Your task to perform on an android device: check out phone information Image 0: 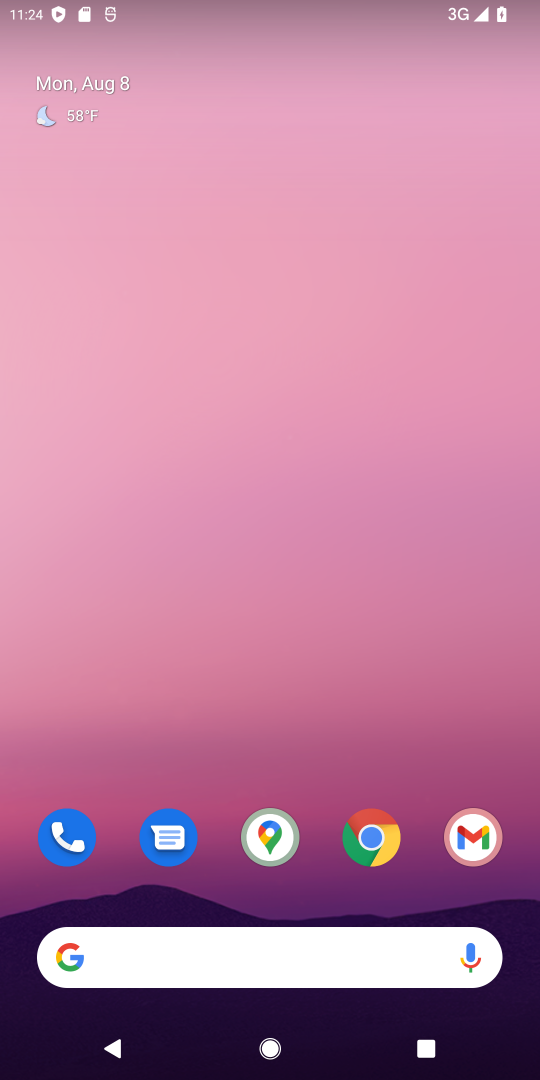
Step 0: drag from (532, 1026) to (499, 214)
Your task to perform on an android device: check out phone information Image 1: 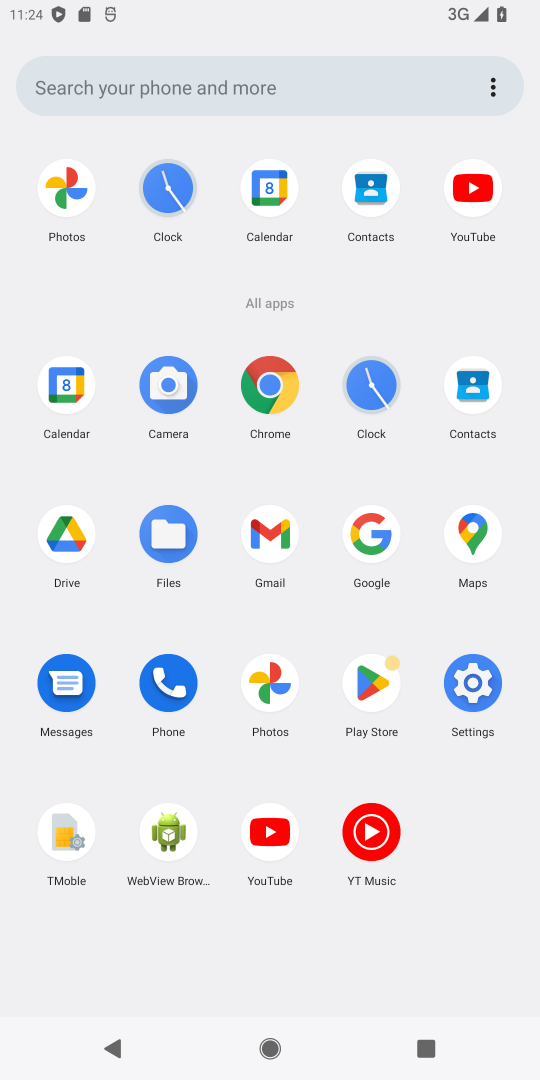
Step 1: click (463, 690)
Your task to perform on an android device: check out phone information Image 2: 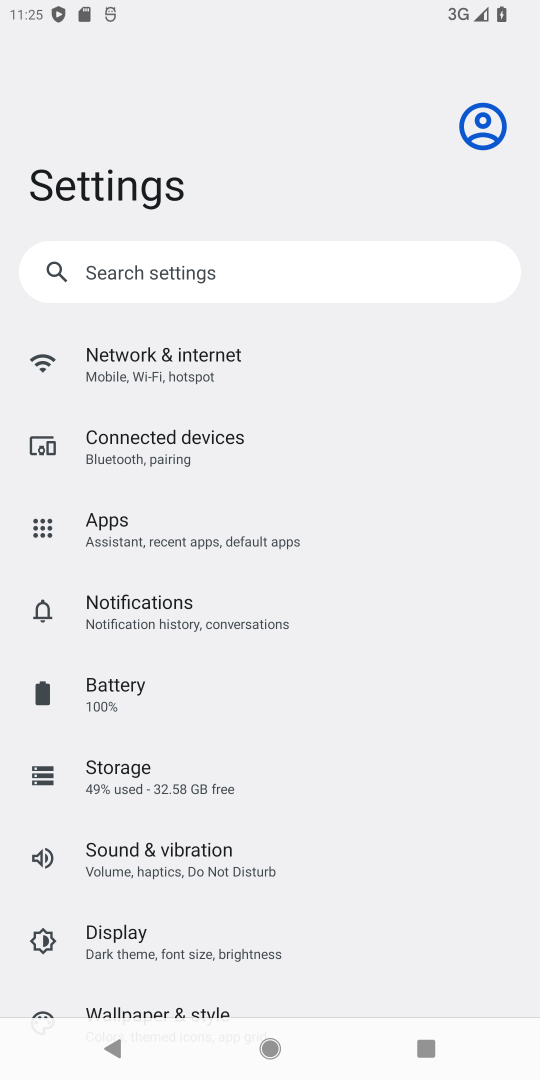
Step 2: drag from (446, 588) to (428, 360)
Your task to perform on an android device: check out phone information Image 3: 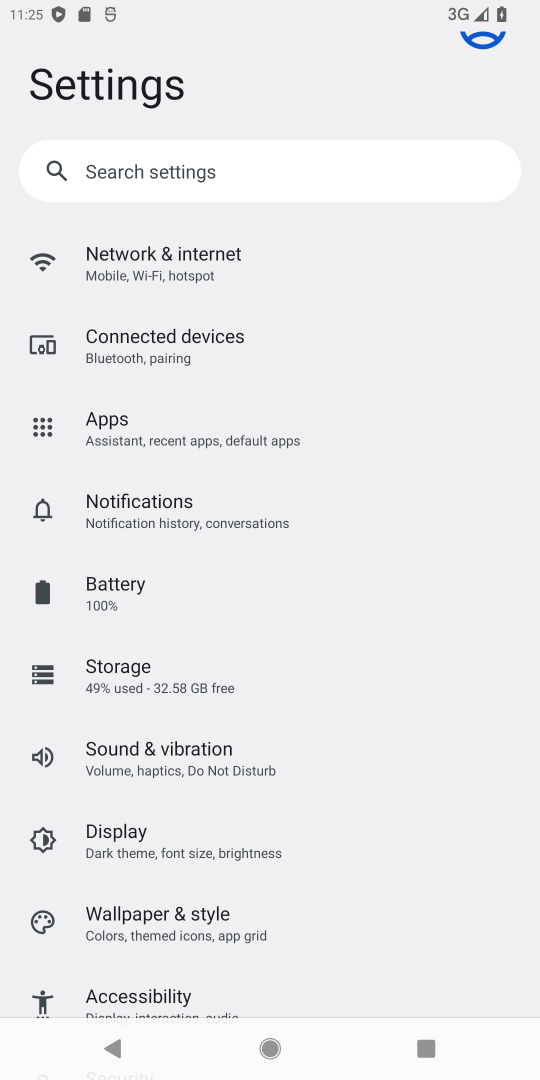
Step 3: drag from (375, 846) to (384, 222)
Your task to perform on an android device: check out phone information Image 4: 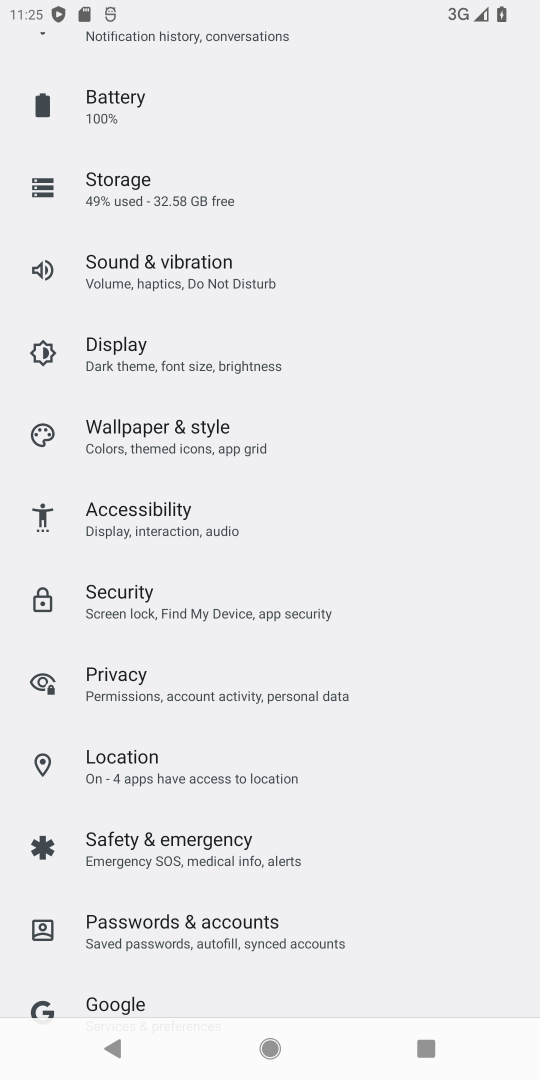
Step 4: drag from (387, 916) to (361, 385)
Your task to perform on an android device: check out phone information Image 5: 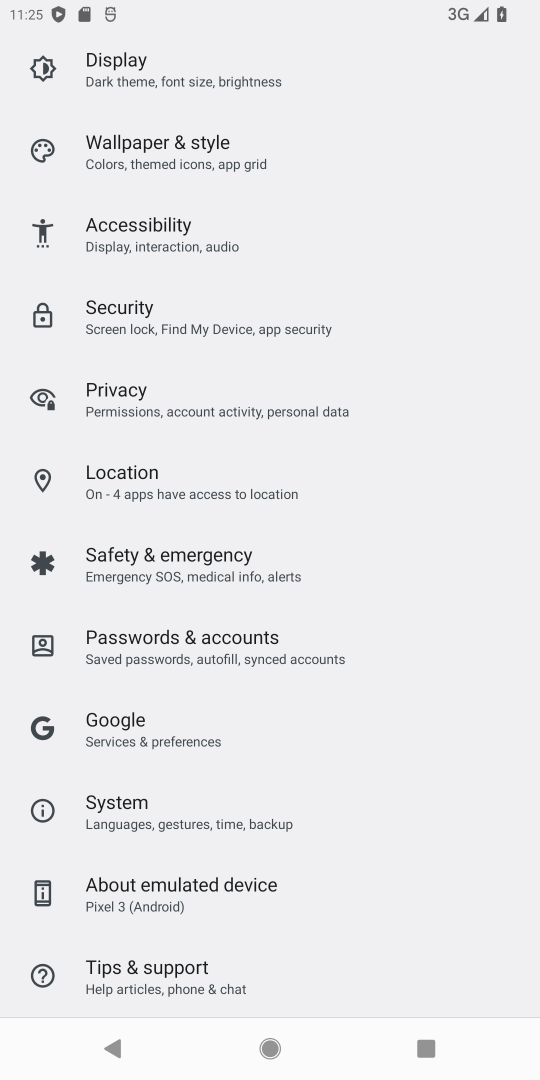
Step 5: click (139, 876)
Your task to perform on an android device: check out phone information Image 6: 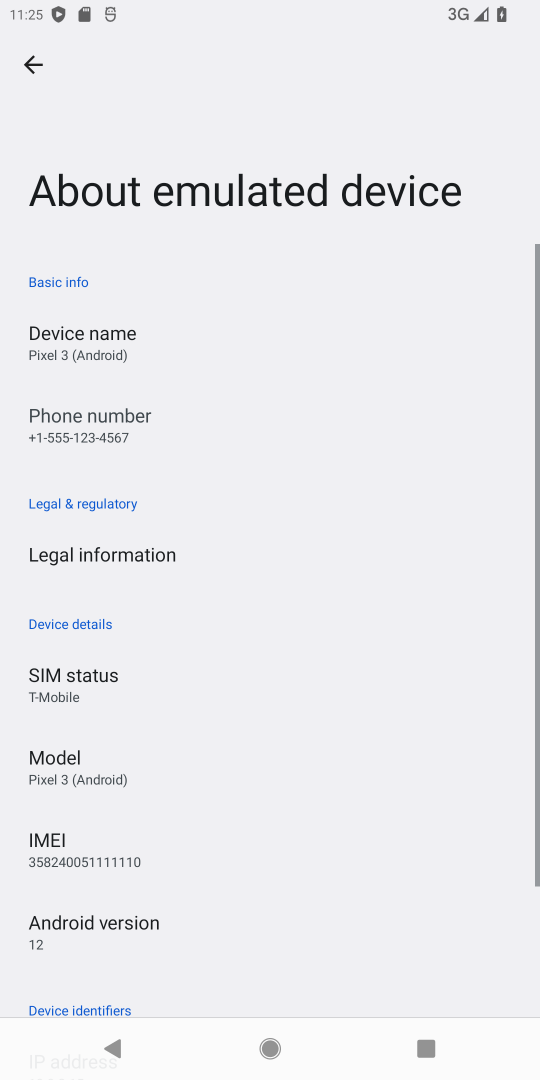
Step 6: task complete